Your task to perform on an android device: Show me recent news Image 0: 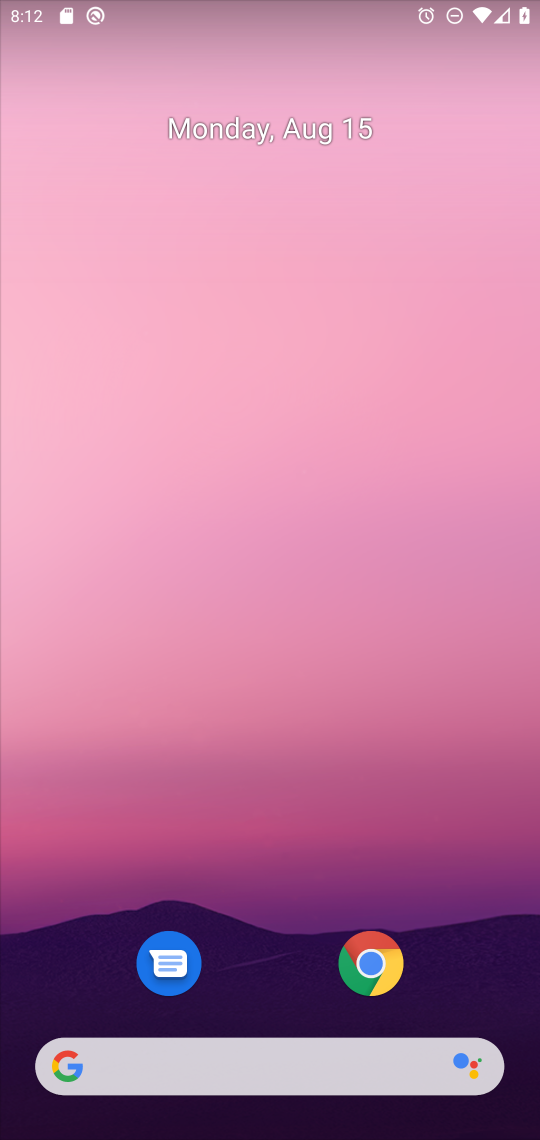
Step 0: click (225, 1079)
Your task to perform on an android device: Show me recent news Image 1: 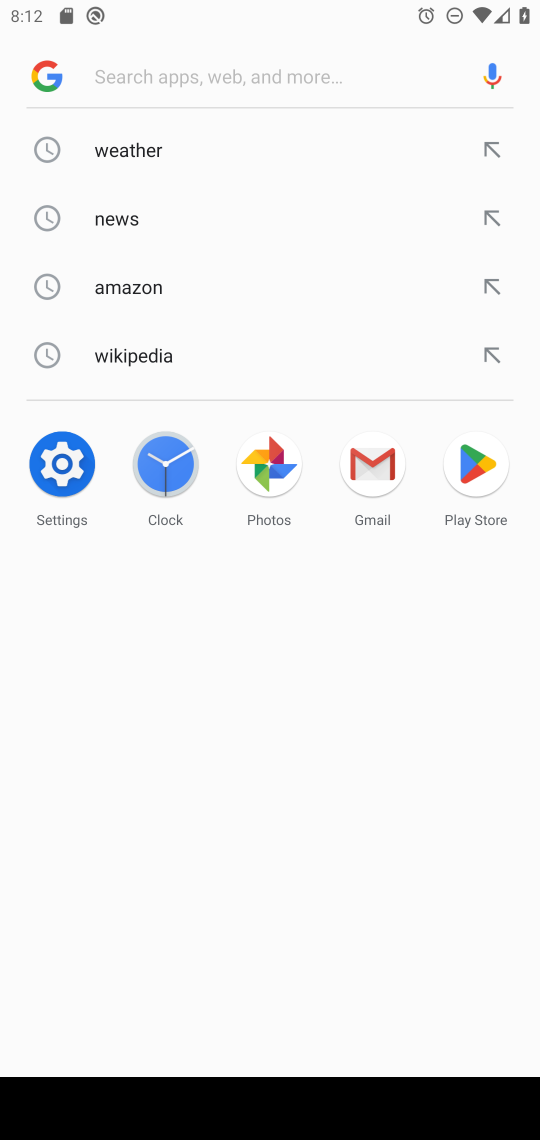
Step 1: click (65, 77)
Your task to perform on an android device: Show me recent news Image 2: 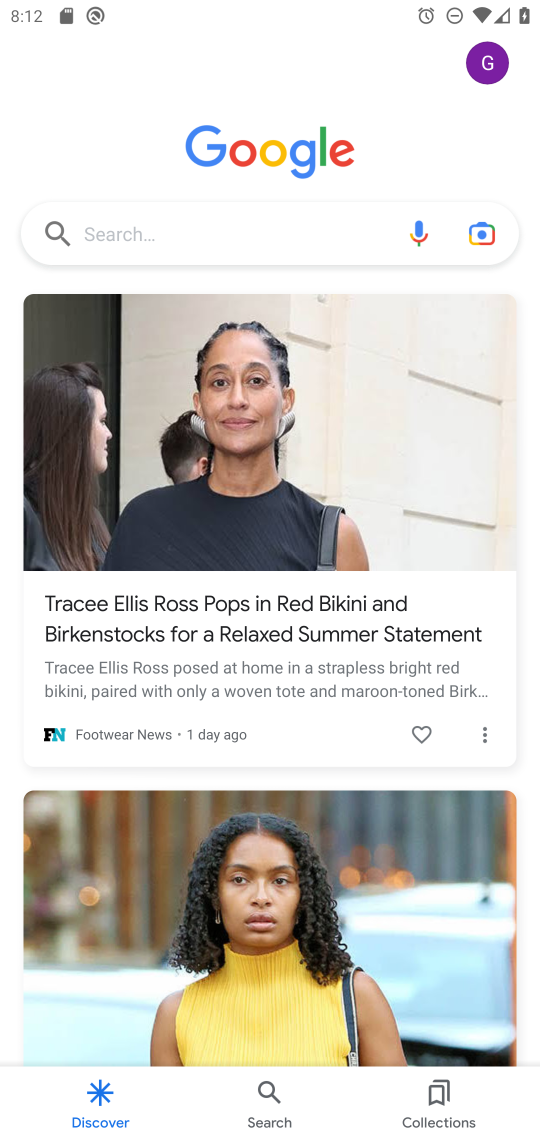
Step 2: task complete